Your task to perform on an android device: turn off picture-in-picture Image 0: 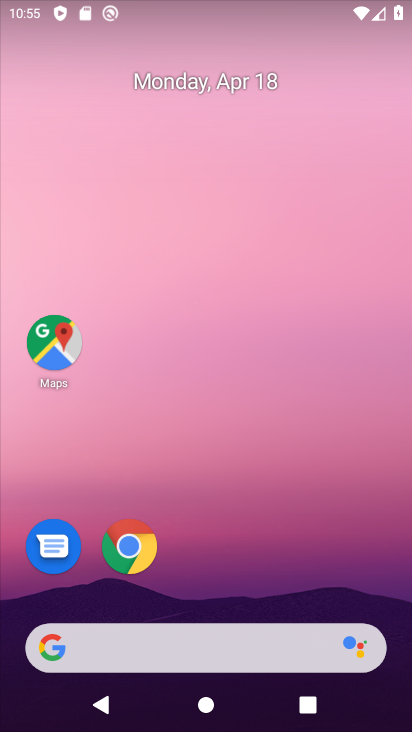
Step 0: drag from (383, 569) to (382, 90)
Your task to perform on an android device: turn off picture-in-picture Image 1: 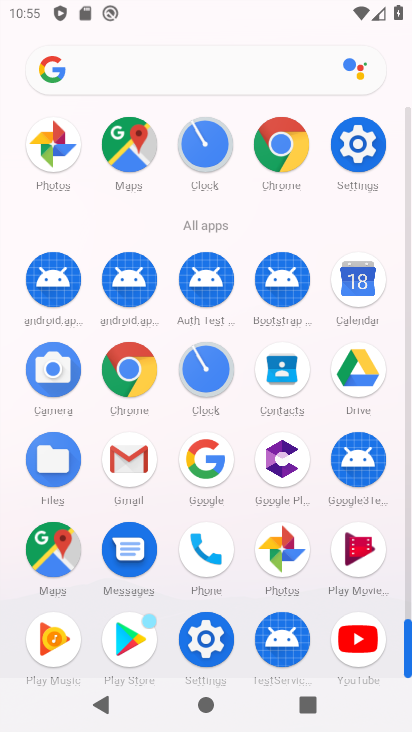
Step 1: click (362, 158)
Your task to perform on an android device: turn off picture-in-picture Image 2: 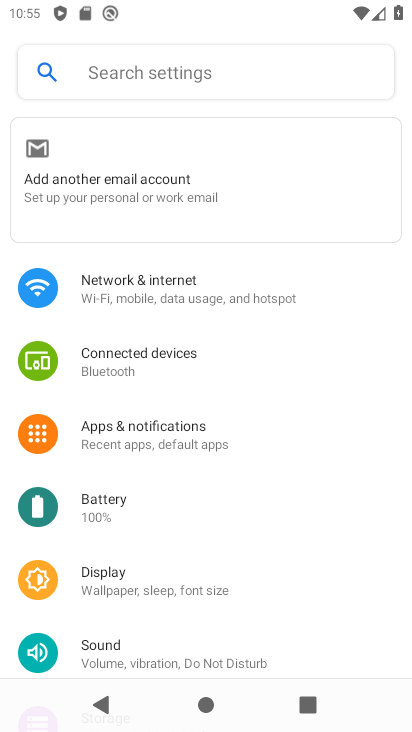
Step 2: drag from (355, 567) to (367, 391)
Your task to perform on an android device: turn off picture-in-picture Image 3: 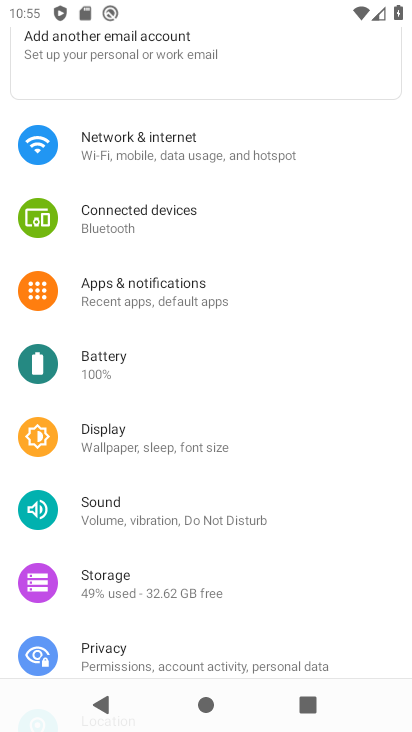
Step 3: drag from (362, 453) to (370, 296)
Your task to perform on an android device: turn off picture-in-picture Image 4: 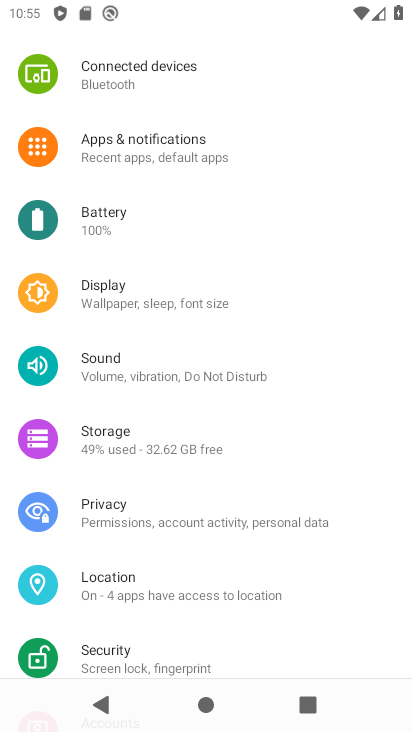
Step 4: drag from (361, 598) to (349, 375)
Your task to perform on an android device: turn off picture-in-picture Image 5: 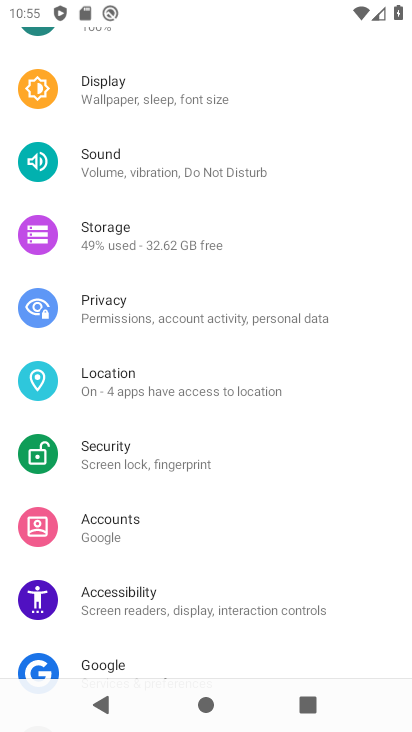
Step 5: drag from (366, 621) to (377, 376)
Your task to perform on an android device: turn off picture-in-picture Image 6: 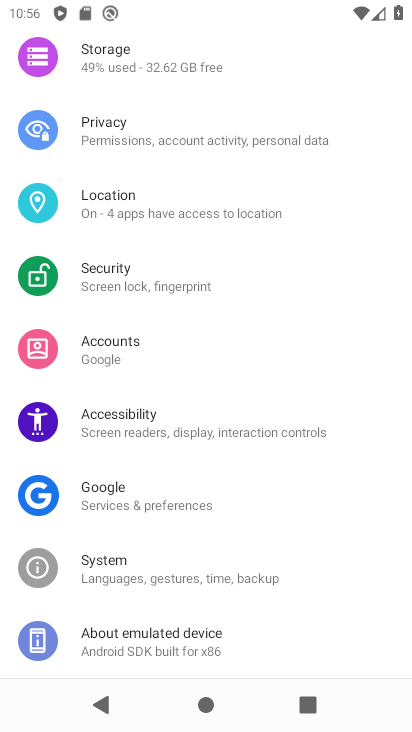
Step 6: drag from (384, 252) to (389, 475)
Your task to perform on an android device: turn off picture-in-picture Image 7: 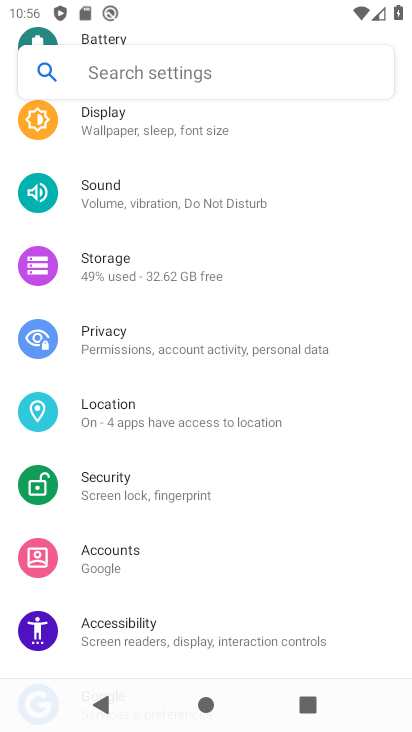
Step 7: drag from (374, 262) to (378, 494)
Your task to perform on an android device: turn off picture-in-picture Image 8: 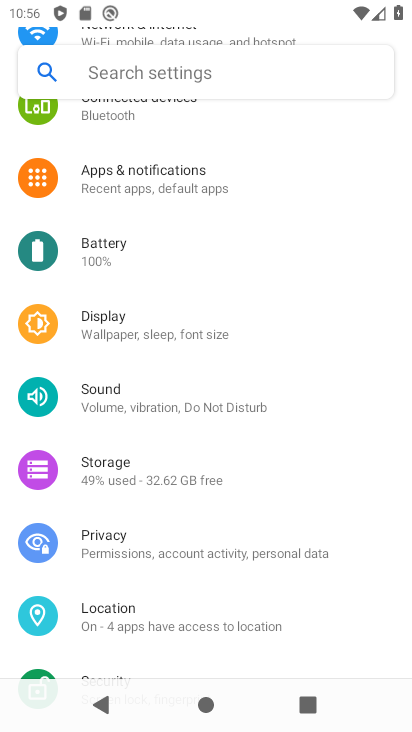
Step 8: click (179, 168)
Your task to perform on an android device: turn off picture-in-picture Image 9: 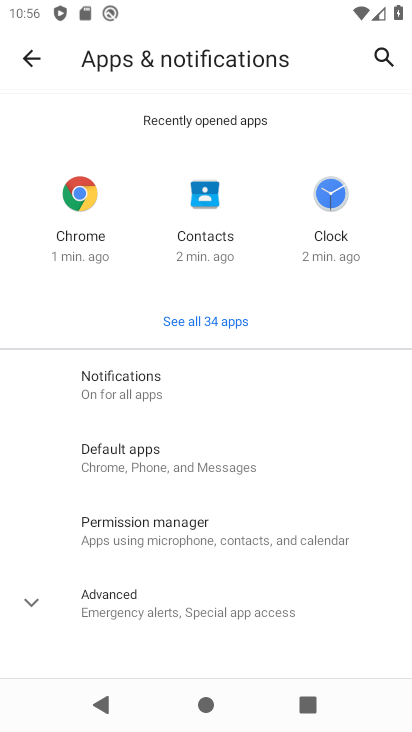
Step 9: drag from (342, 583) to (339, 365)
Your task to perform on an android device: turn off picture-in-picture Image 10: 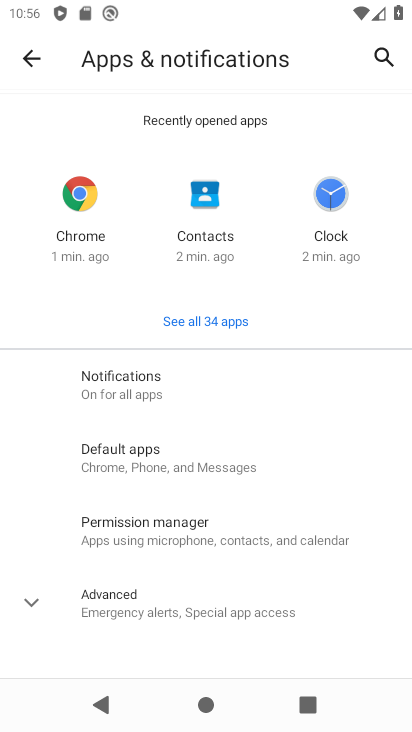
Step 10: click (234, 608)
Your task to perform on an android device: turn off picture-in-picture Image 11: 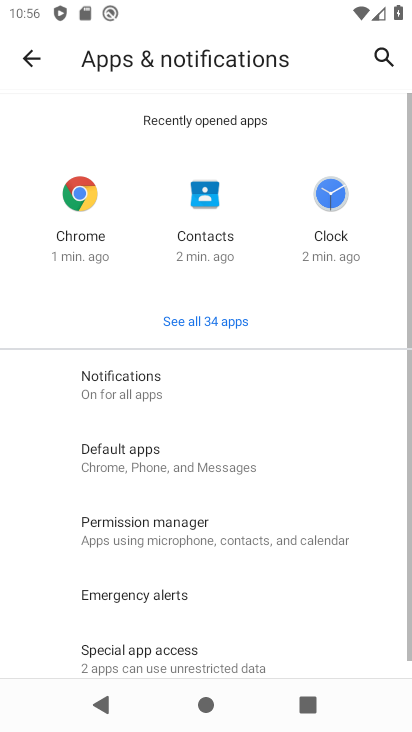
Step 11: drag from (345, 558) to (354, 322)
Your task to perform on an android device: turn off picture-in-picture Image 12: 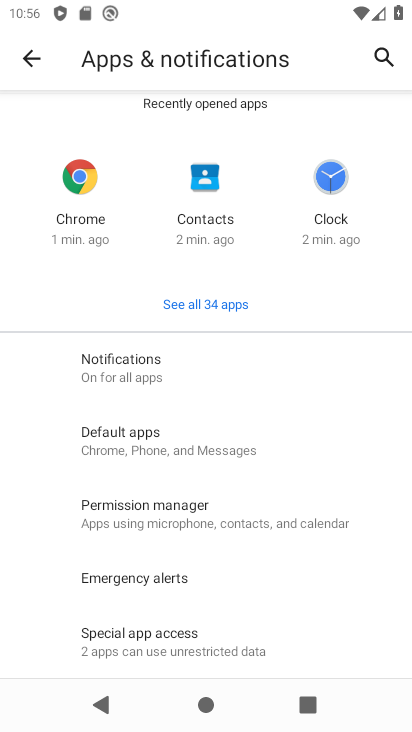
Step 12: click (172, 642)
Your task to perform on an android device: turn off picture-in-picture Image 13: 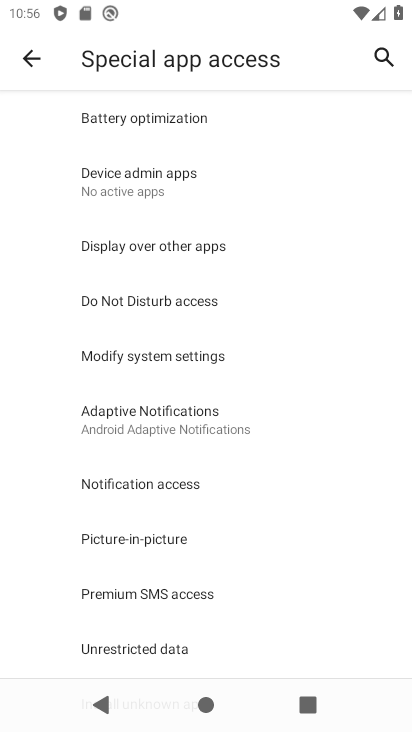
Step 13: click (141, 538)
Your task to perform on an android device: turn off picture-in-picture Image 14: 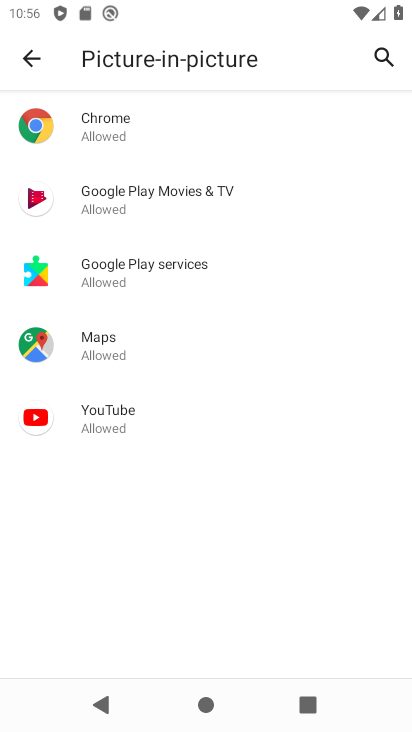
Step 14: click (114, 421)
Your task to perform on an android device: turn off picture-in-picture Image 15: 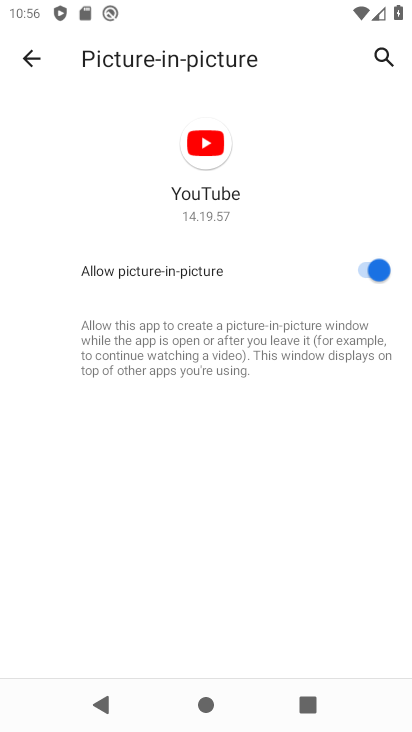
Step 15: click (361, 265)
Your task to perform on an android device: turn off picture-in-picture Image 16: 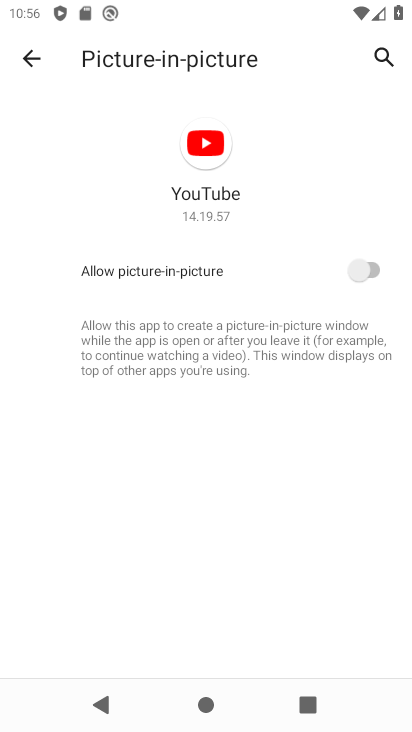
Step 16: task complete